Your task to perform on an android device: star an email in the gmail app Image 0: 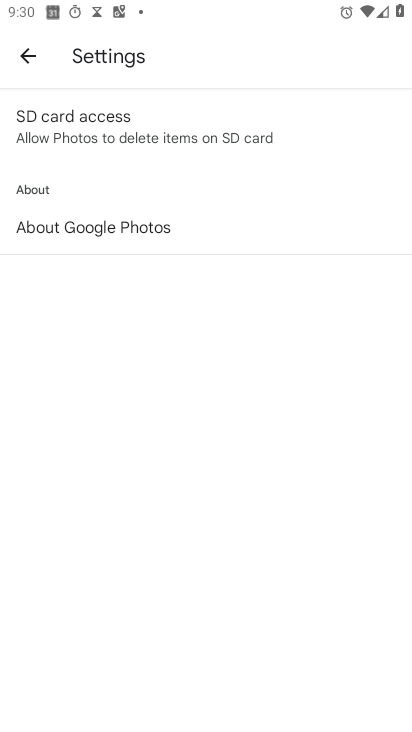
Step 0: press home button
Your task to perform on an android device: star an email in the gmail app Image 1: 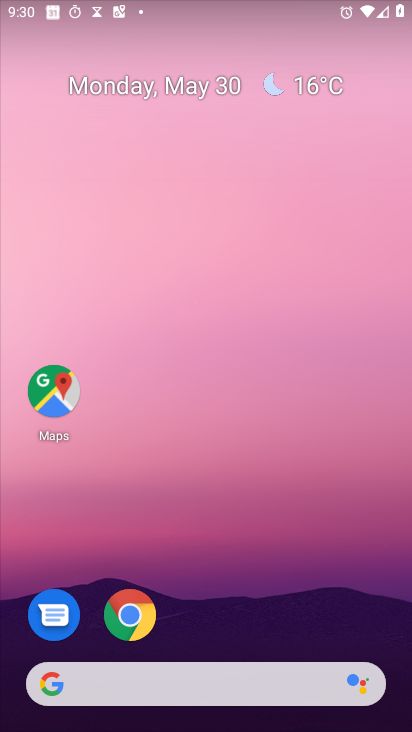
Step 1: drag from (280, 560) to (269, 94)
Your task to perform on an android device: star an email in the gmail app Image 2: 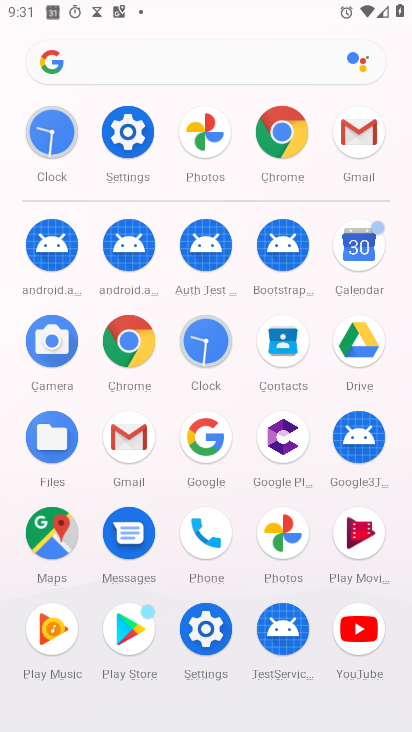
Step 2: click (357, 145)
Your task to perform on an android device: star an email in the gmail app Image 3: 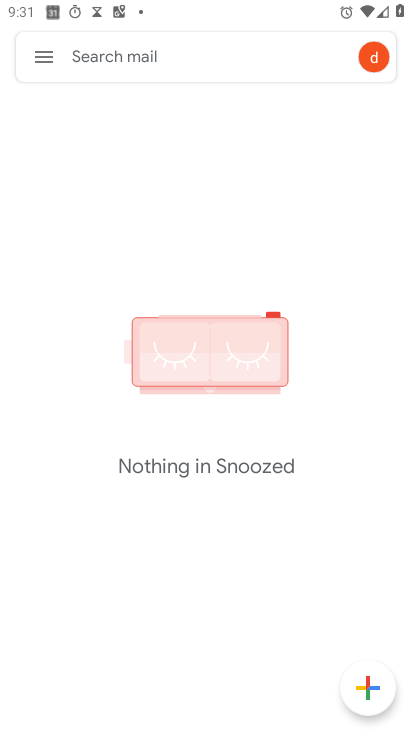
Step 3: click (47, 62)
Your task to perform on an android device: star an email in the gmail app Image 4: 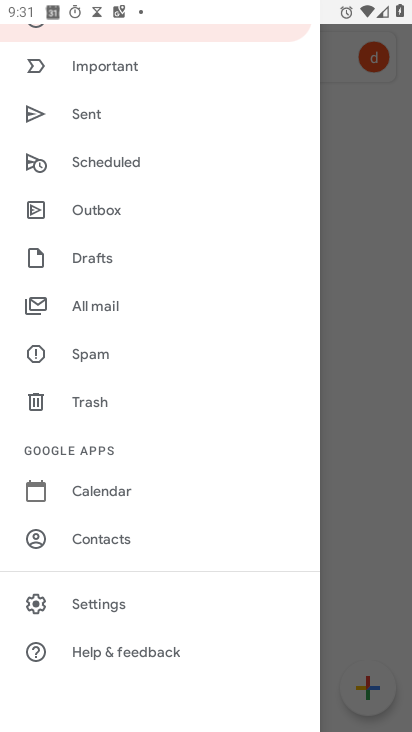
Step 4: drag from (198, 303) to (244, 606)
Your task to perform on an android device: star an email in the gmail app Image 5: 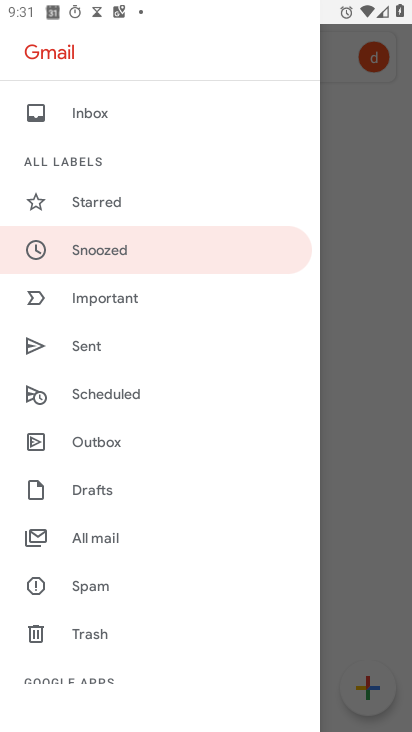
Step 5: click (68, 124)
Your task to perform on an android device: star an email in the gmail app Image 6: 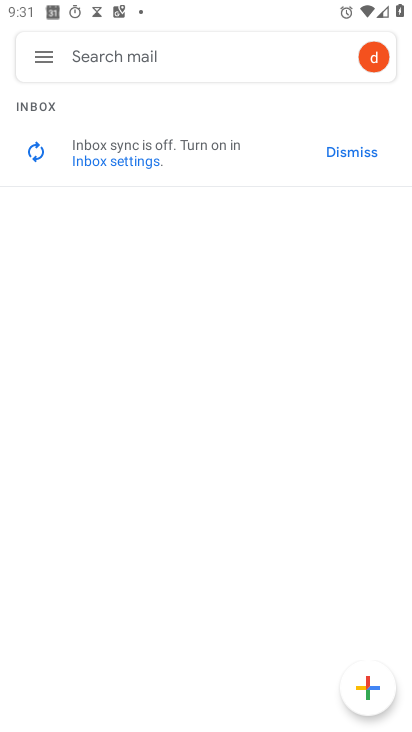
Step 6: task complete